Your task to perform on an android device: Open accessibility settings Image 0: 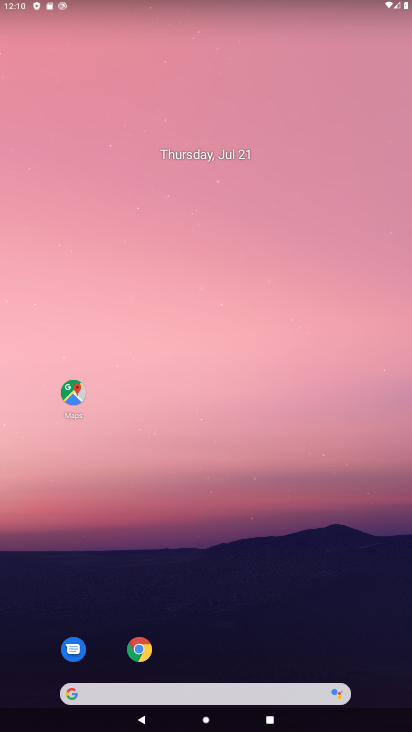
Step 0: drag from (378, 660) to (323, 92)
Your task to perform on an android device: Open accessibility settings Image 1: 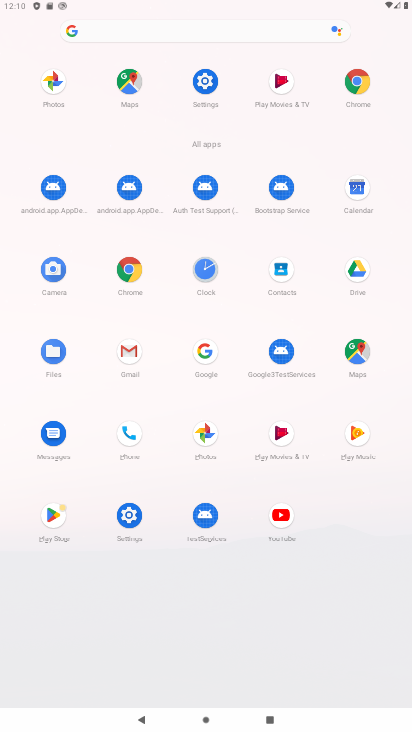
Step 1: click (129, 515)
Your task to perform on an android device: Open accessibility settings Image 2: 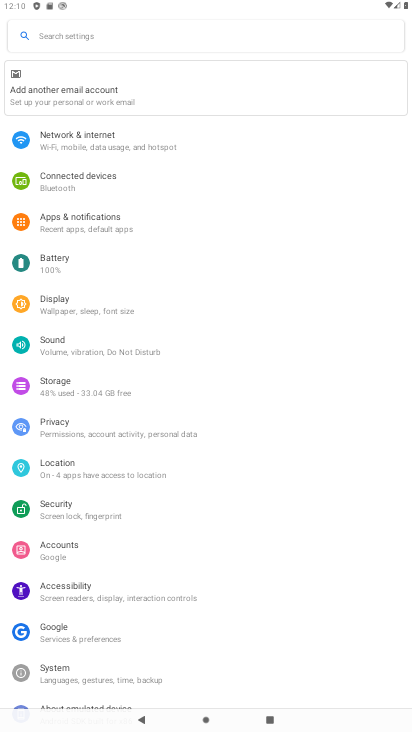
Step 2: click (66, 588)
Your task to perform on an android device: Open accessibility settings Image 3: 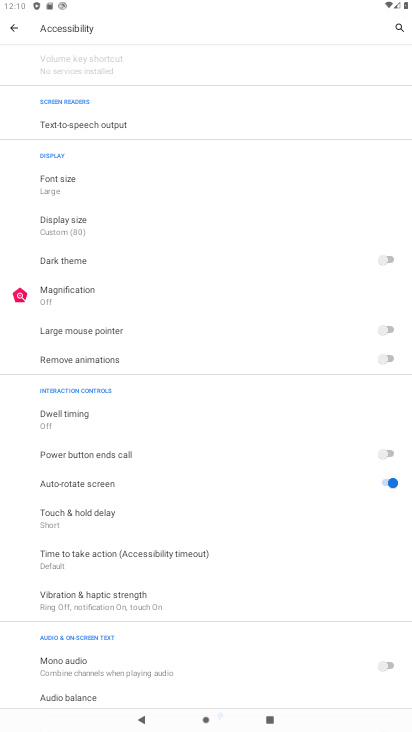
Step 3: task complete